Your task to perform on an android device: uninstall "Google Calendar" Image 0: 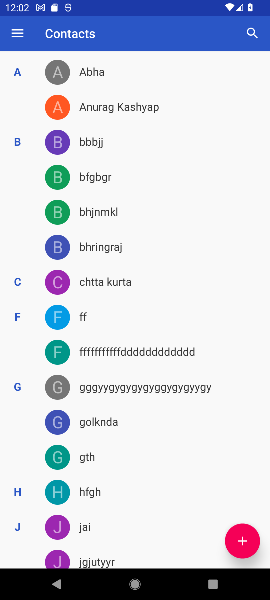
Step 0: press back button
Your task to perform on an android device: uninstall "Google Calendar" Image 1: 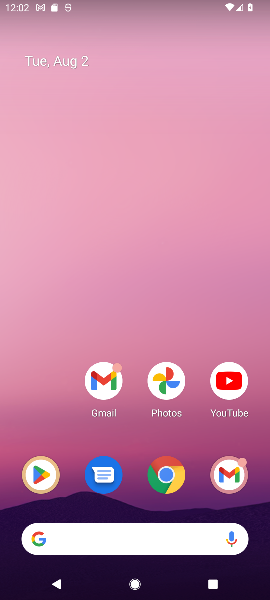
Step 1: click (31, 472)
Your task to perform on an android device: uninstall "Google Calendar" Image 2: 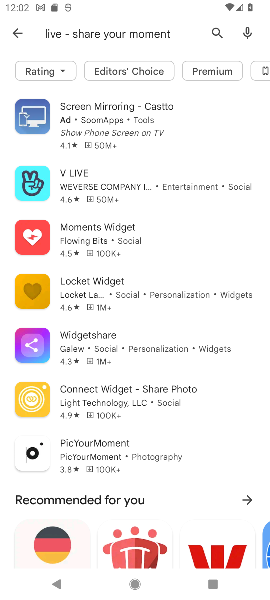
Step 2: click (222, 29)
Your task to perform on an android device: uninstall "Google Calendar" Image 3: 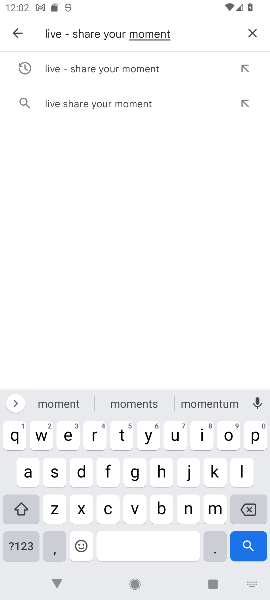
Step 3: click (255, 29)
Your task to perform on an android device: uninstall "Google Calendar" Image 4: 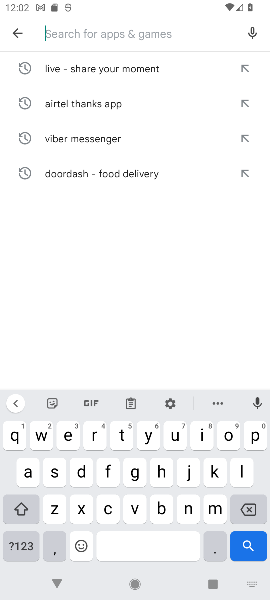
Step 4: type "Google Calendar""
Your task to perform on an android device: uninstall "Google Calendar" Image 5: 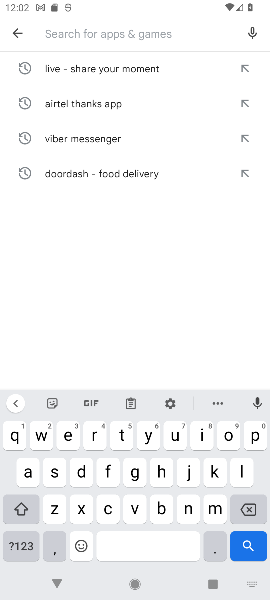
Step 5: type ""
Your task to perform on an android device: uninstall "Google Calendar" Image 6: 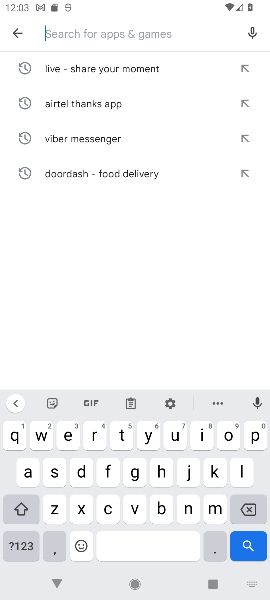
Step 6: type "Google Calendarr"
Your task to perform on an android device: uninstall "Google Calendar" Image 7: 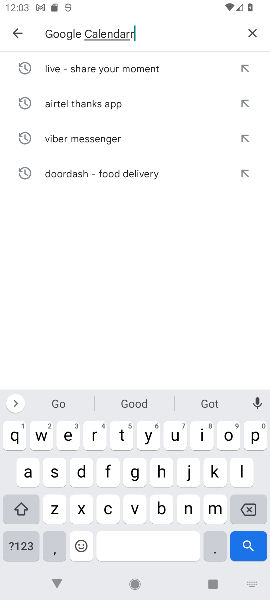
Step 7: type ""
Your task to perform on an android device: uninstall "Google Calendar" Image 8: 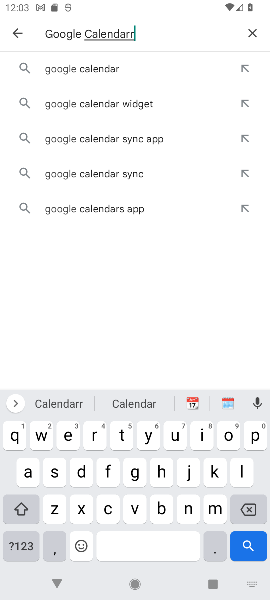
Step 8: click (82, 64)
Your task to perform on an android device: uninstall "Google Calendar" Image 9: 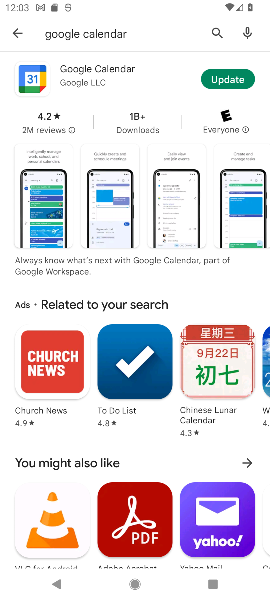
Step 9: click (227, 73)
Your task to perform on an android device: uninstall "Google Calendar" Image 10: 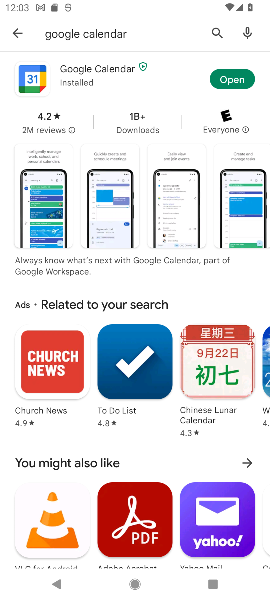
Step 10: click (37, 70)
Your task to perform on an android device: uninstall "Google Calendar" Image 11: 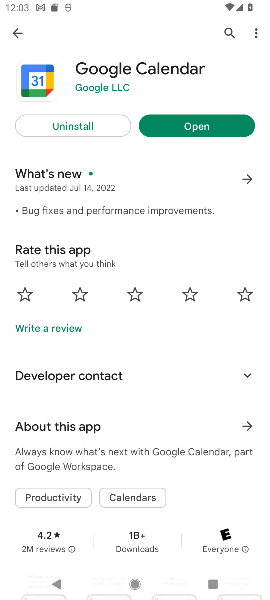
Step 11: click (63, 130)
Your task to perform on an android device: uninstall "Google Calendar" Image 12: 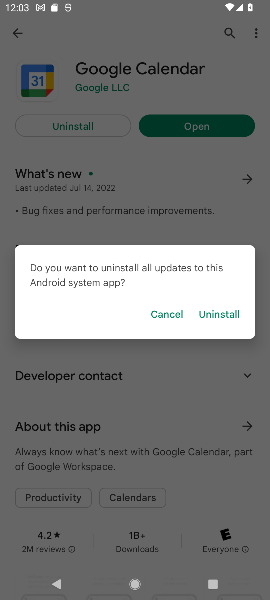
Step 12: click (217, 311)
Your task to perform on an android device: uninstall "Google Calendar" Image 13: 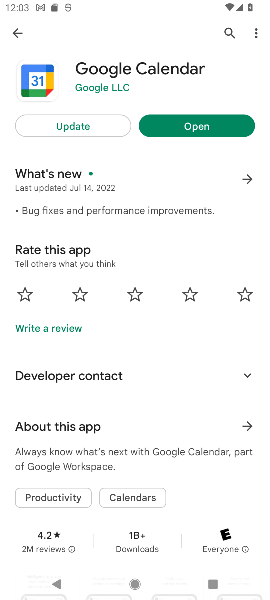
Step 13: task complete